Your task to perform on an android device: toggle javascript in the chrome app Image 0: 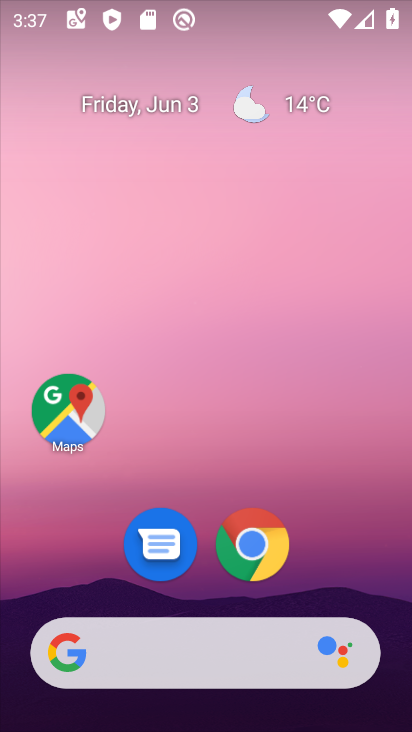
Step 0: click (244, 541)
Your task to perform on an android device: toggle javascript in the chrome app Image 1: 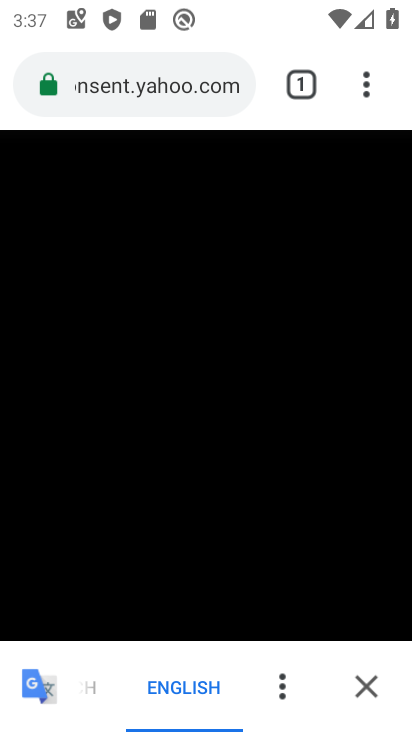
Step 1: click (368, 88)
Your task to perform on an android device: toggle javascript in the chrome app Image 2: 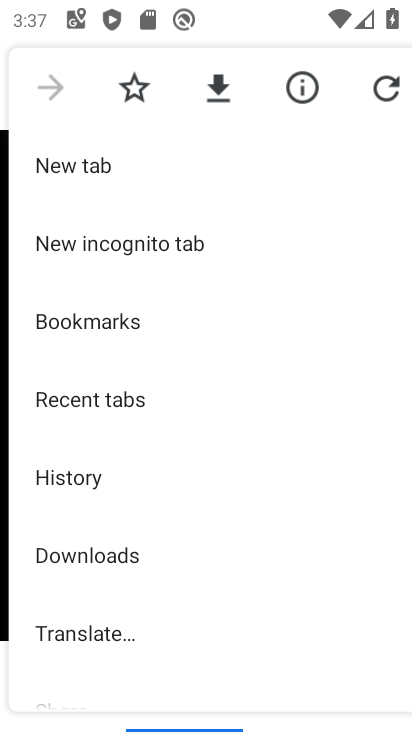
Step 2: drag from (208, 486) to (255, 137)
Your task to perform on an android device: toggle javascript in the chrome app Image 3: 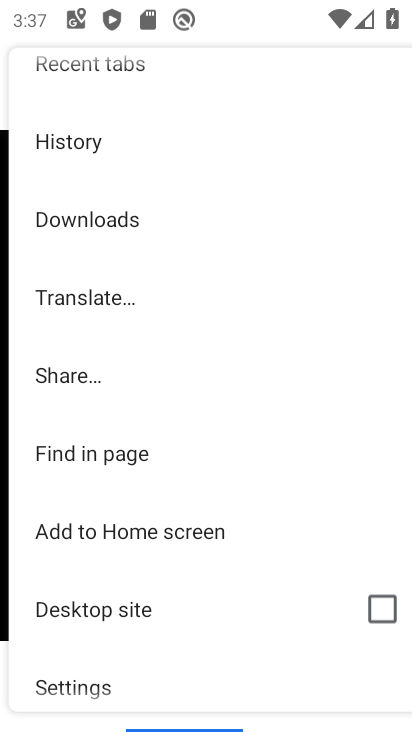
Step 3: drag from (200, 611) to (237, 161)
Your task to perform on an android device: toggle javascript in the chrome app Image 4: 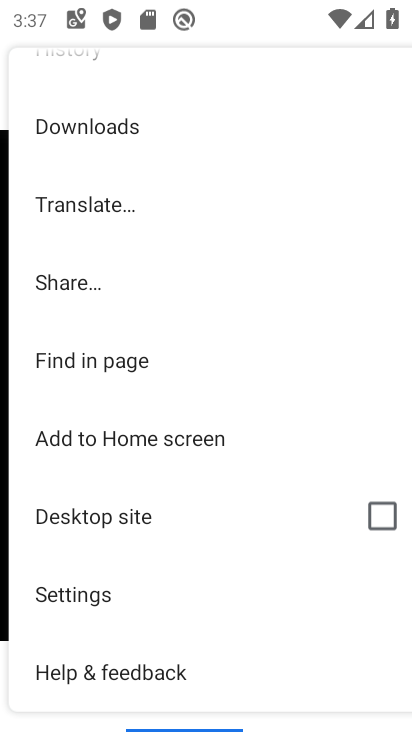
Step 4: click (93, 589)
Your task to perform on an android device: toggle javascript in the chrome app Image 5: 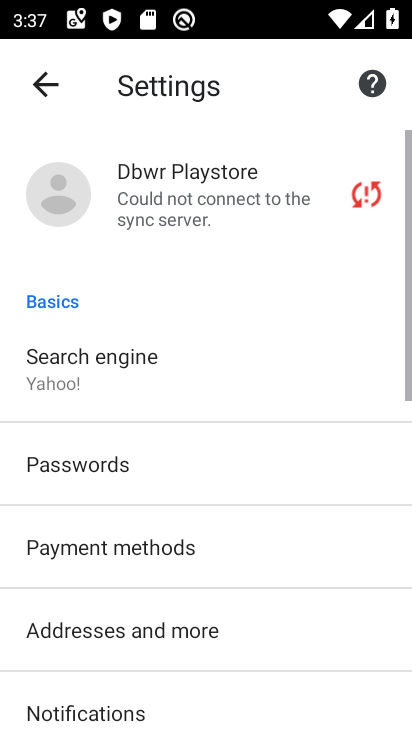
Step 5: drag from (198, 646) to (196, 107)
Your task to perform on an android device: toggle javascript in the chrome app Image 6: 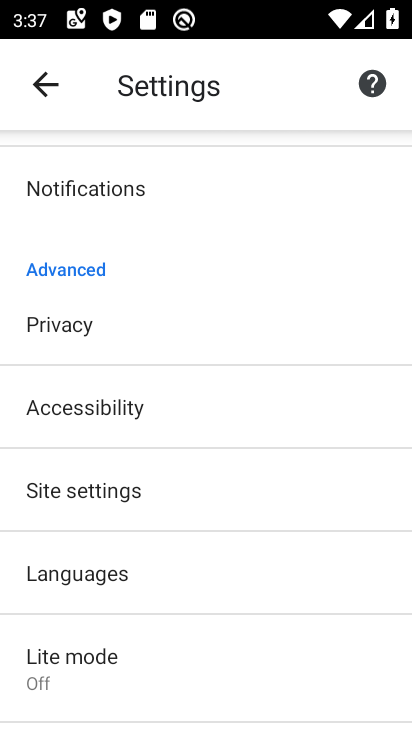
Step 6: click (78, 497)
Your task to perform on an android device: toggle javascript in the chrome app Image 7: 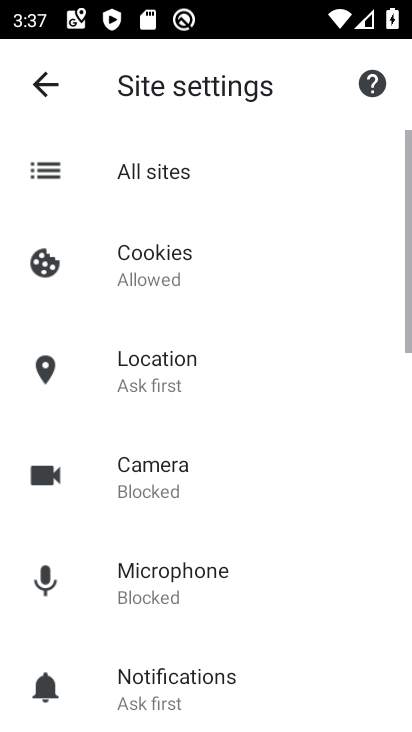
Step 7: drag from (244, 649) to (244, 118)
Your task to perform on an android device: toggle javascript in the chrome app Image 8: 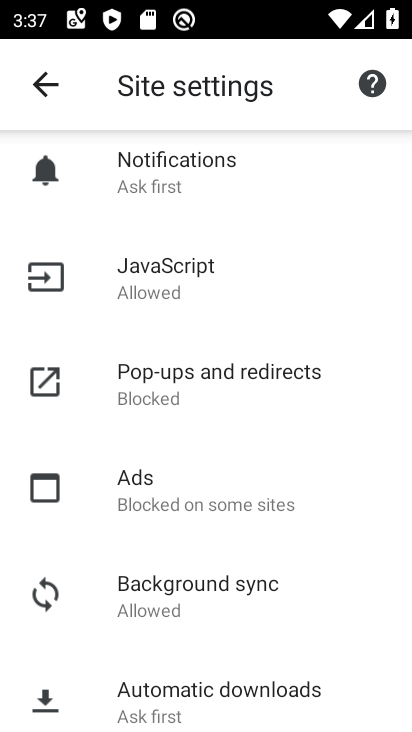
Step 8: click (140, 236)
Your task to perform on an android device: toggle javascript in the chrome app Image 9: 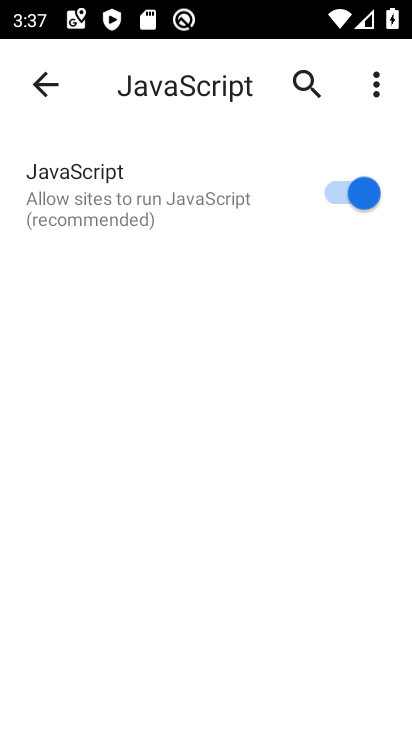
Step 9: click (336, 188)
Your task to perform on an android device: toggle javascript in the chrome app Image 10: 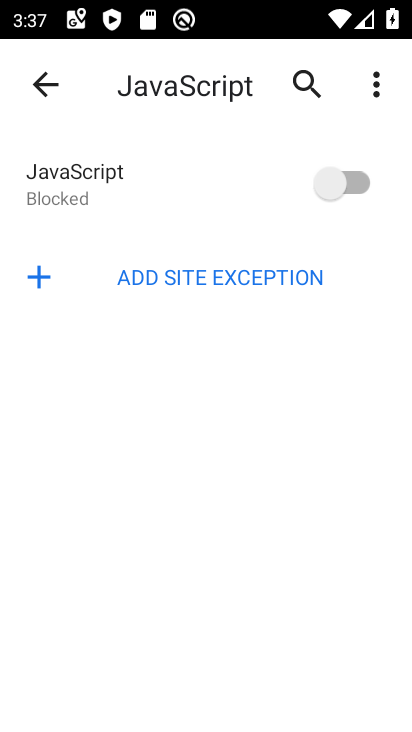
Step 10: task complete